Your task to perform on an android device: Go to wifi settings Image 0: 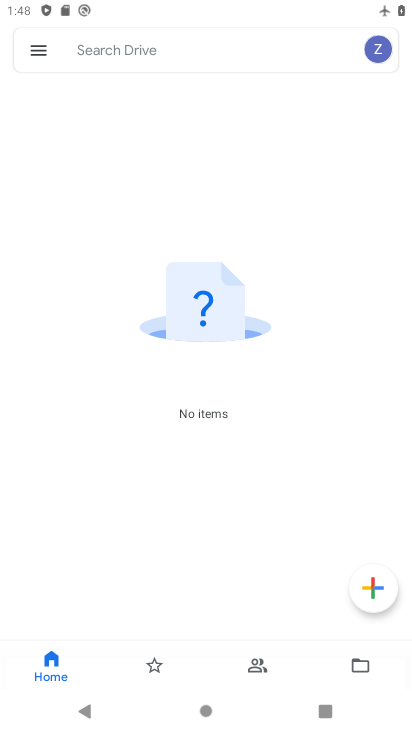
Step 0: press home button
Your task to perform on an android device: Go to wifi settings Image 1: 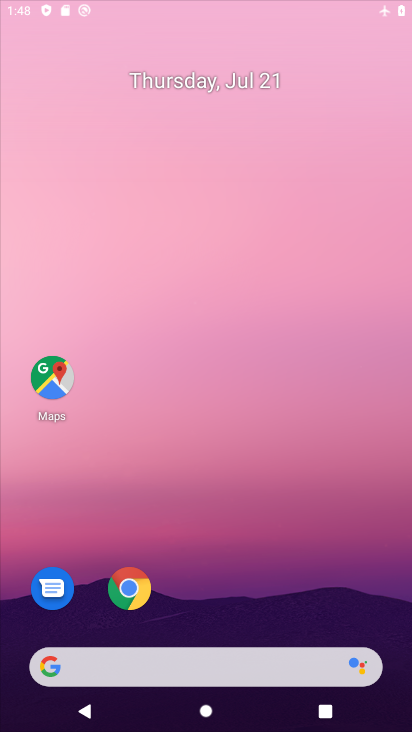
Step 1: drag from (396, 4) to (331, 728)
Your task to perform on an android device: Go to wifi settings Image 2: 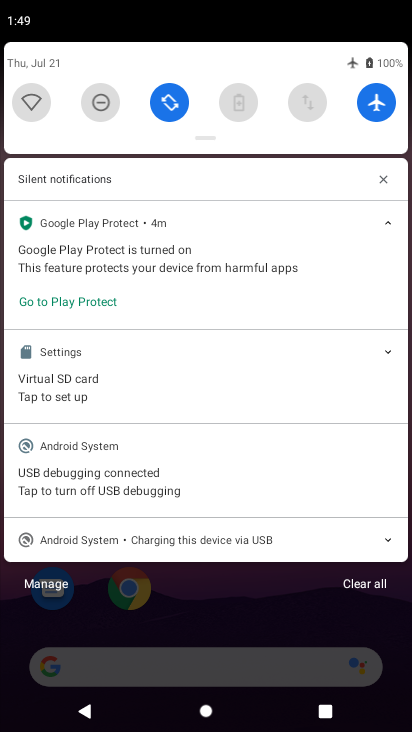
Step 2: click (37, 97)
Your task to perform on an android device: Go to wifi settings Image 3: 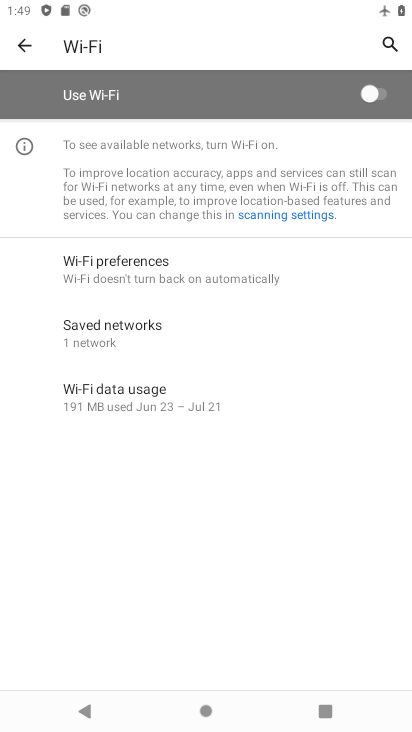
Step 3: task complete